Your task to perform on an android device: uninstall "Expedia: Hotels, Flights & Car" Image 0: 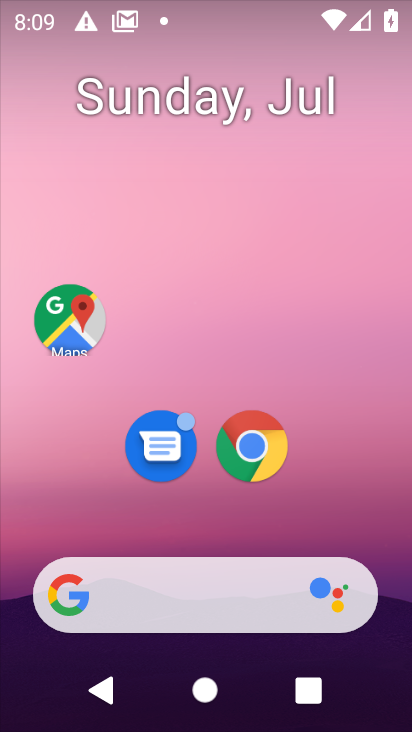
Step 0: drag from (198, 533) to (208, 112)
Your task to perform on an android device: uninstall "Expedia: Hotels, Flights & Car" Image 1: 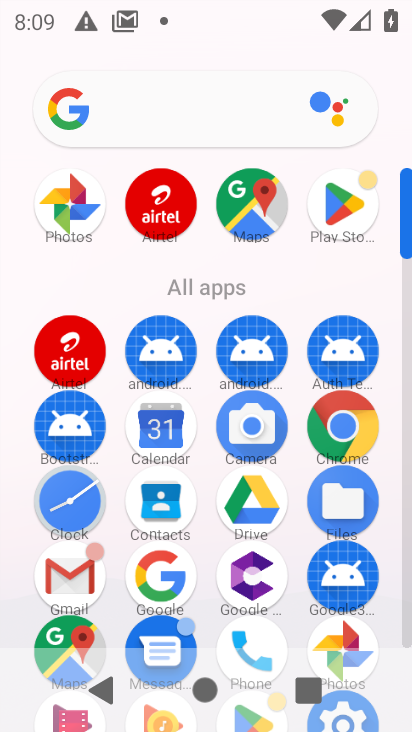
Step 1: click (334, 194)
Your task to perform on an android device: uninstall "Expedia: Hotels, Flights & Car" Image 2: 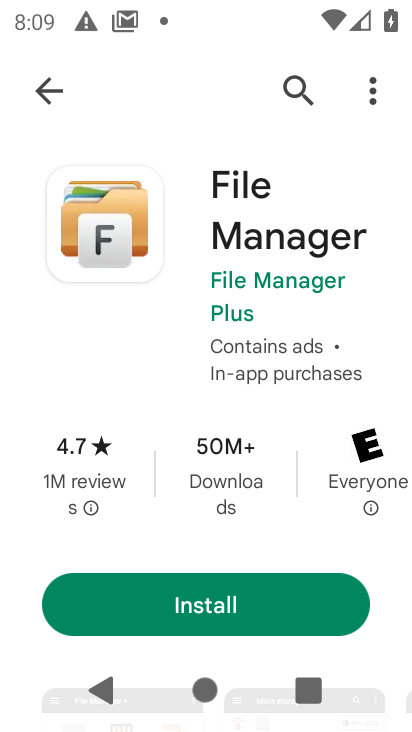
Step 2: click (41, 86)
Your task to perform on an android device: uninstall "Expedia: Hotels, Flights & Car" Image 3: 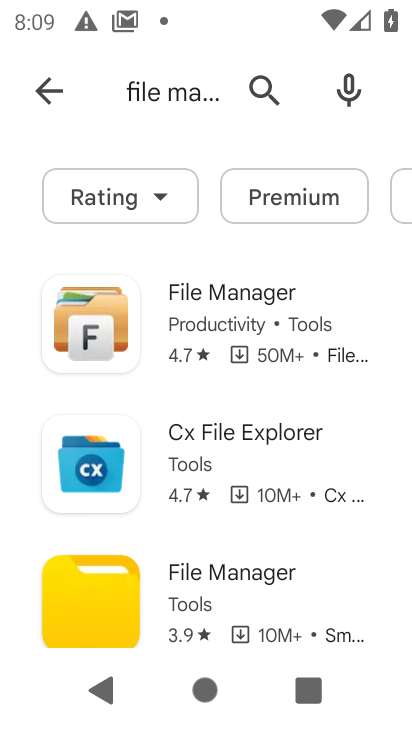
Step 3: click (267, 85)
Your task to perform on an android device: uninstall "Expedia: Hotels, Flights & Car" Image 4: 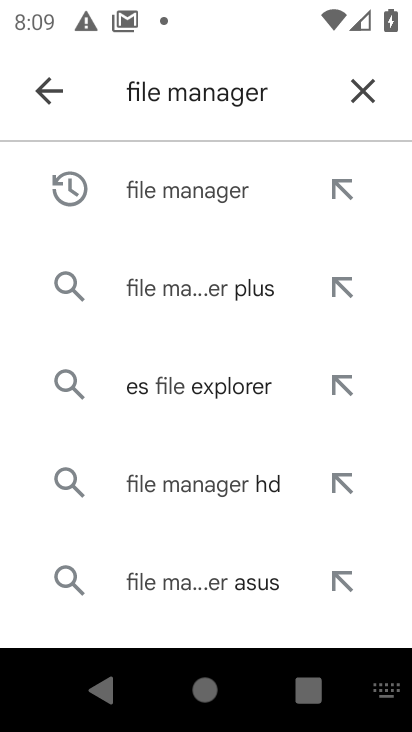
Step 4: click (357, 86)
Your task to perform on an android device: uninstall "Expedia: Hotels, Flights & Car" Image 5: 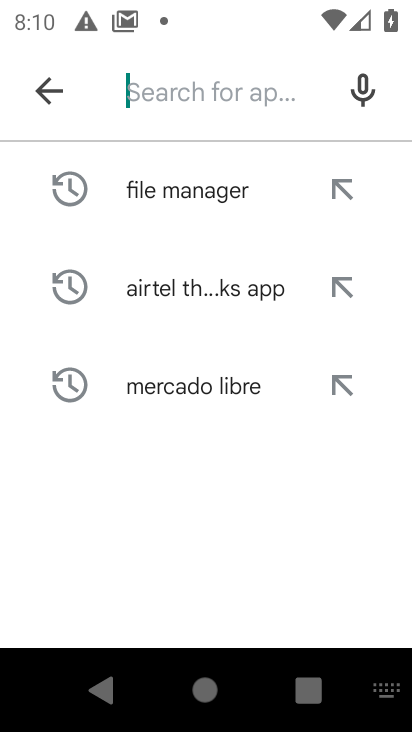
Step 5: type "Expedia: Hotels, Flights & Car"
Your task to perform on an android device: uninstall "Expedia: Hotels, Flights & Car" Image 6: 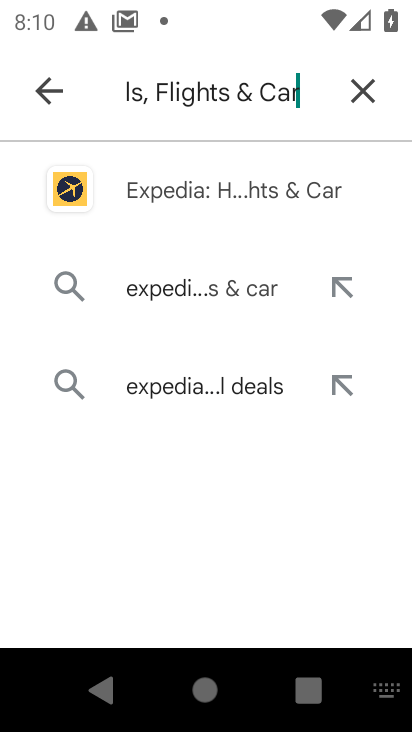
Step 6: click (253, 181)
Your task to perform on an android device: uninstall "Expedia: Hotels, Flights & Car" Image 7: 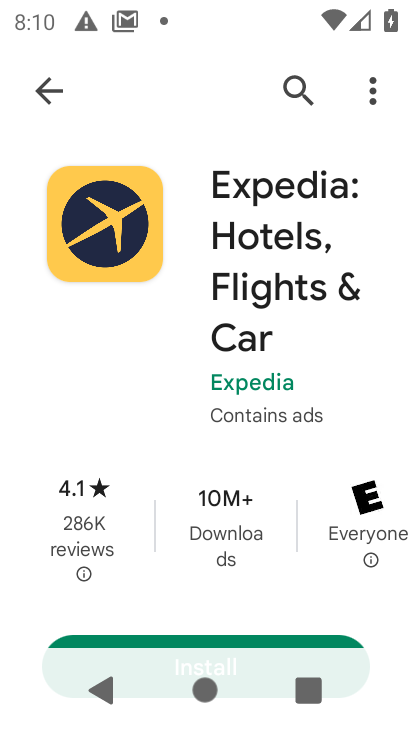
Step 7: task complete